Your task to perform on an android device: toggle location history Image 0: 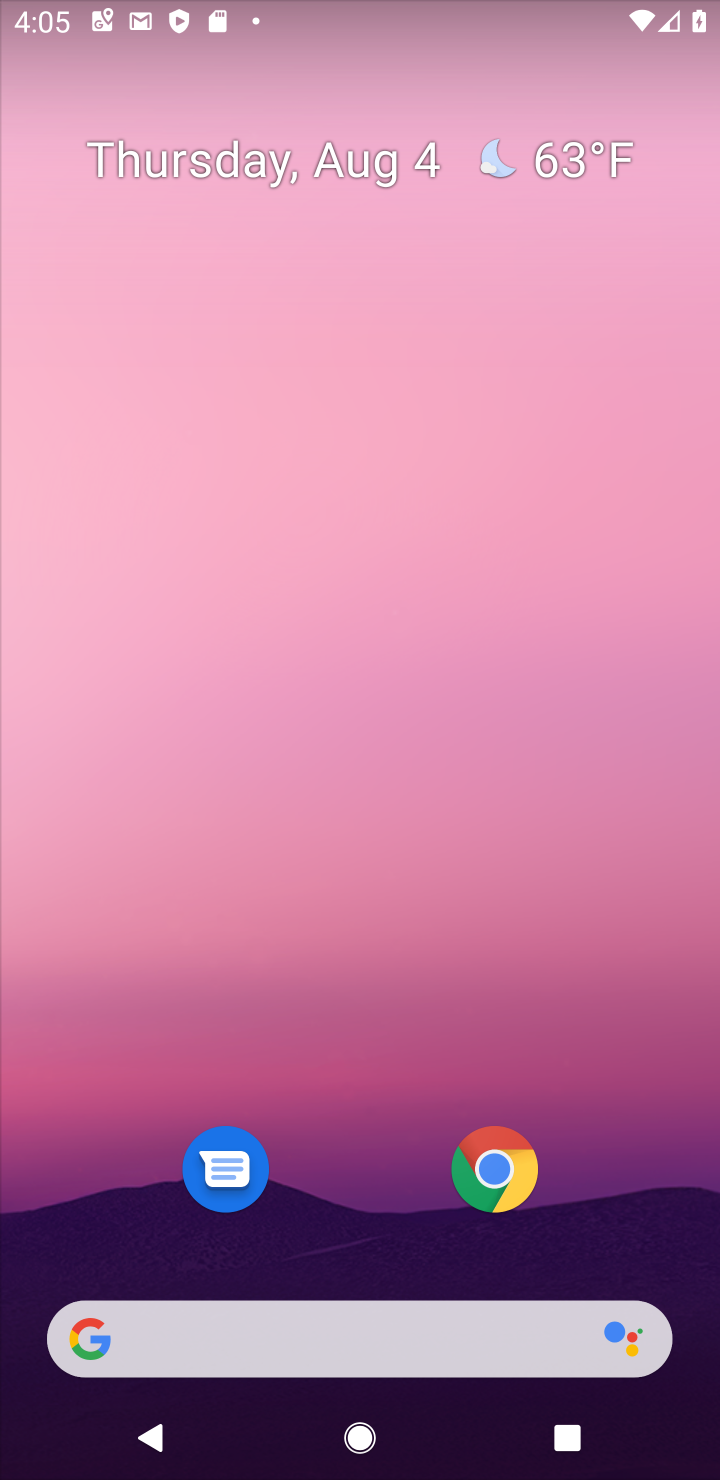
Step 0: drag from (359, 933) to (442, 218)
Your task to perform on an android device: toggle location history Image 1: 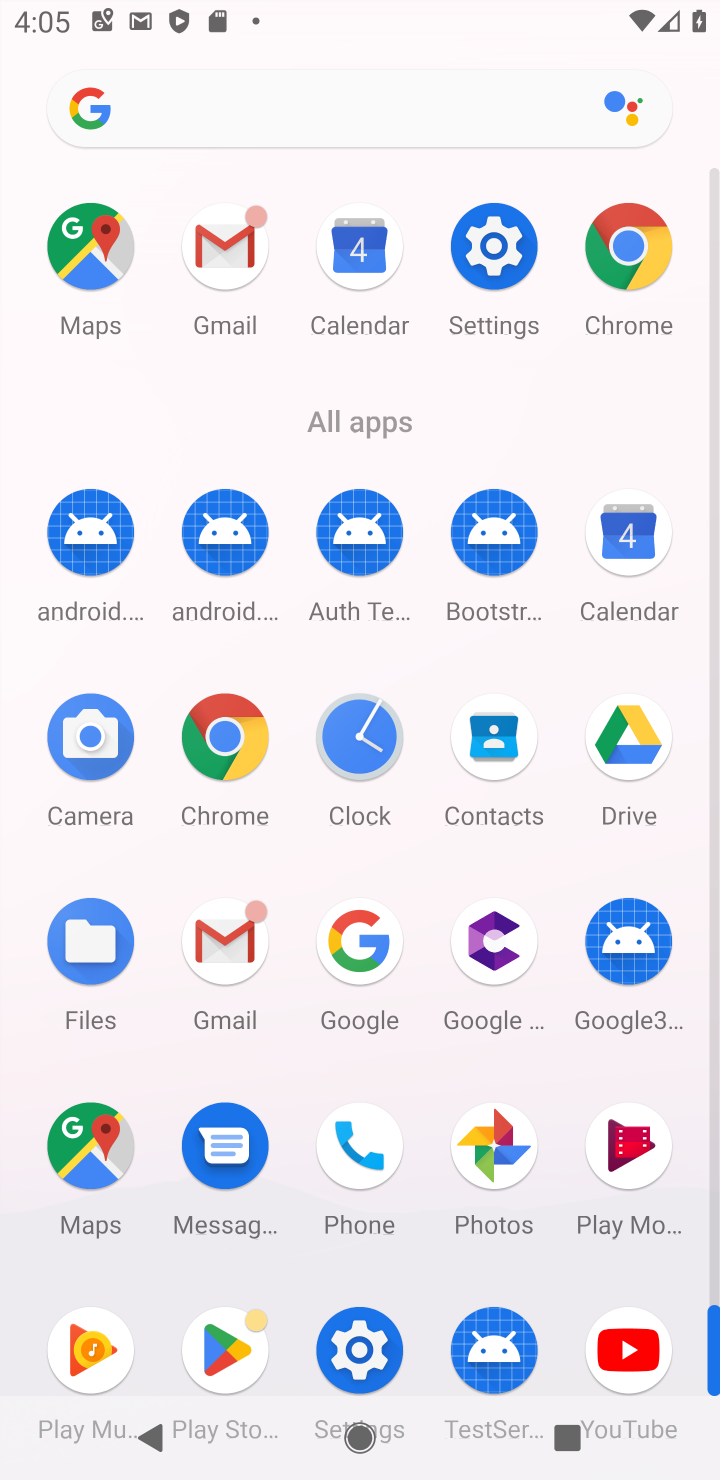
Step 1: click (482, 292)
Your task to perform on an android device: toggle location history Image 2: 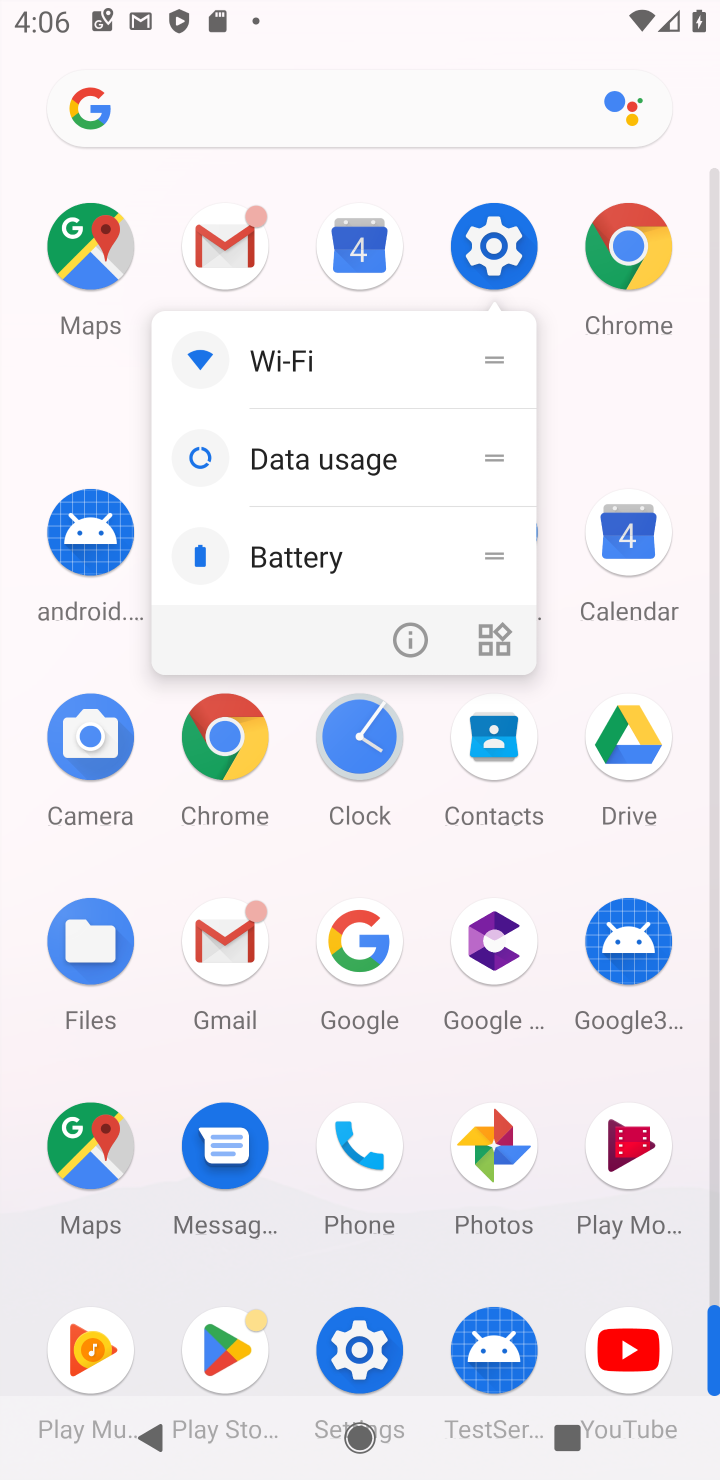
Step 2: click (518, 242)
Your task to perform on an android device: toggle location history Image 3: 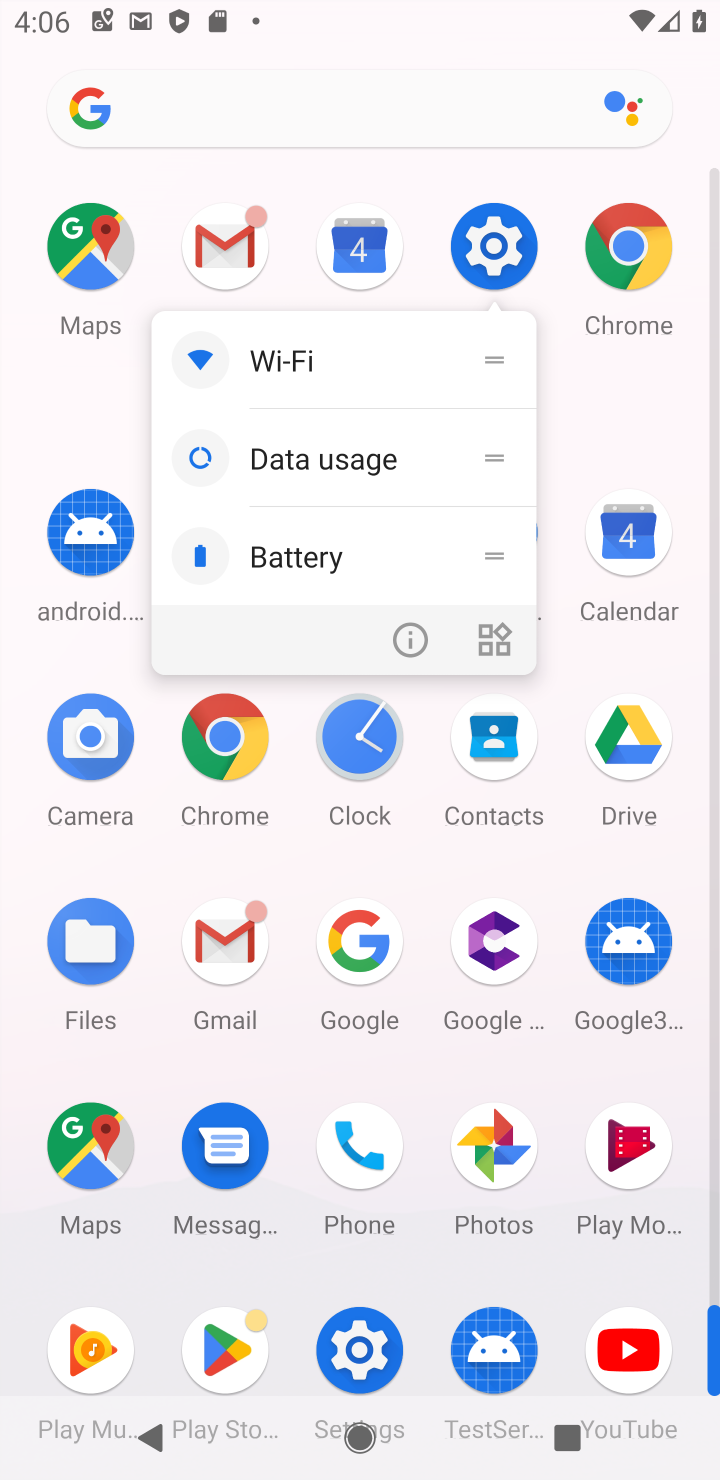
Step 3: click (512, 252)
Your task to perform on an android device: toggle location history Image 4: 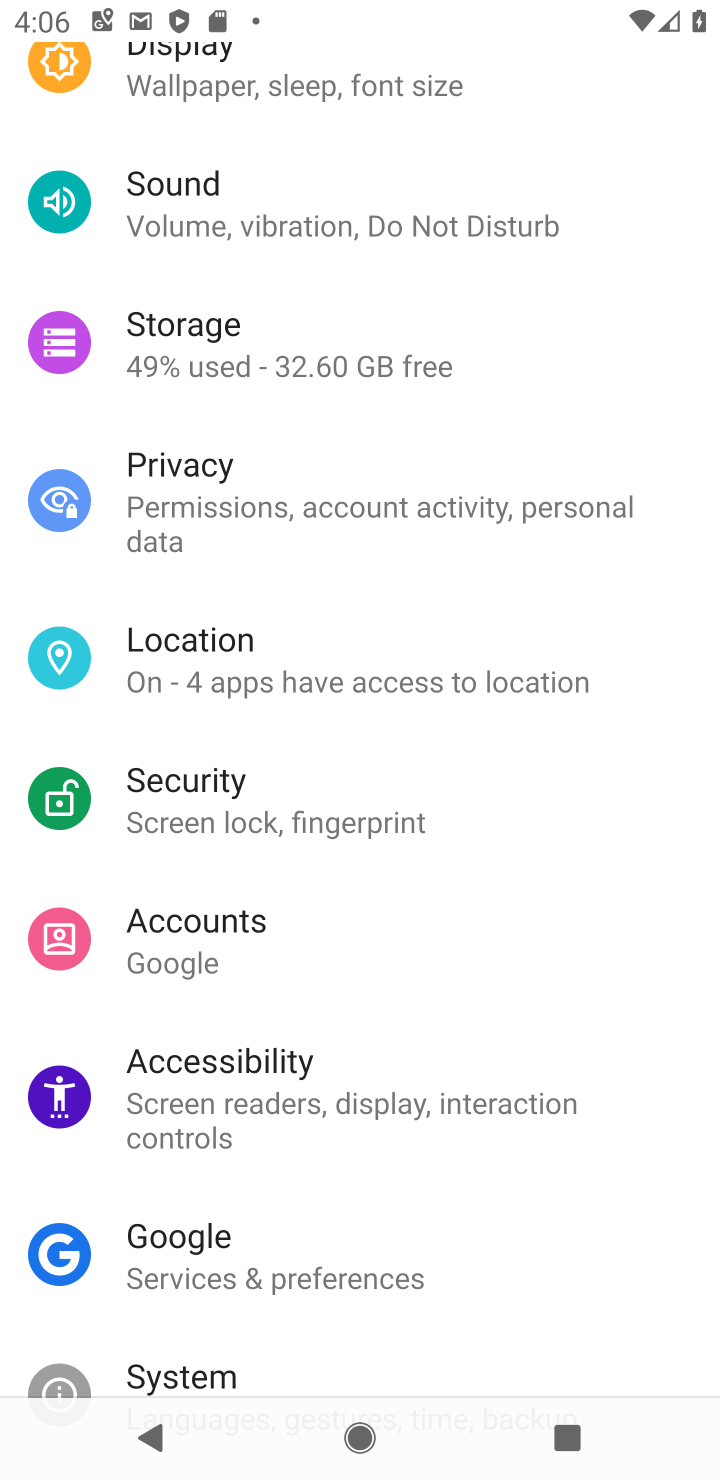
Step 4: click (322, 672)
Your task to perform on an android device: toggle location history Image 5: 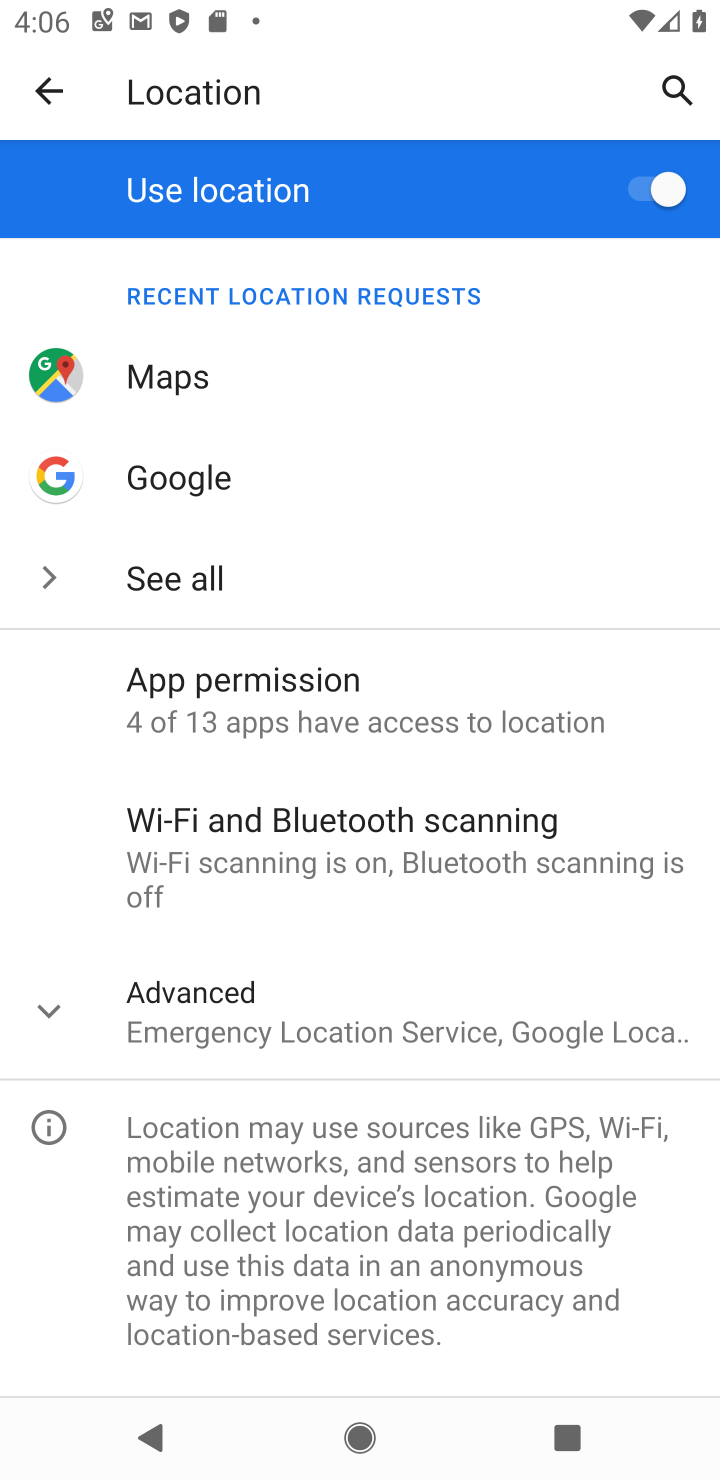
Step 5: click (343, 1039)
Your task to perform on an android device: toggle location history Image 6: 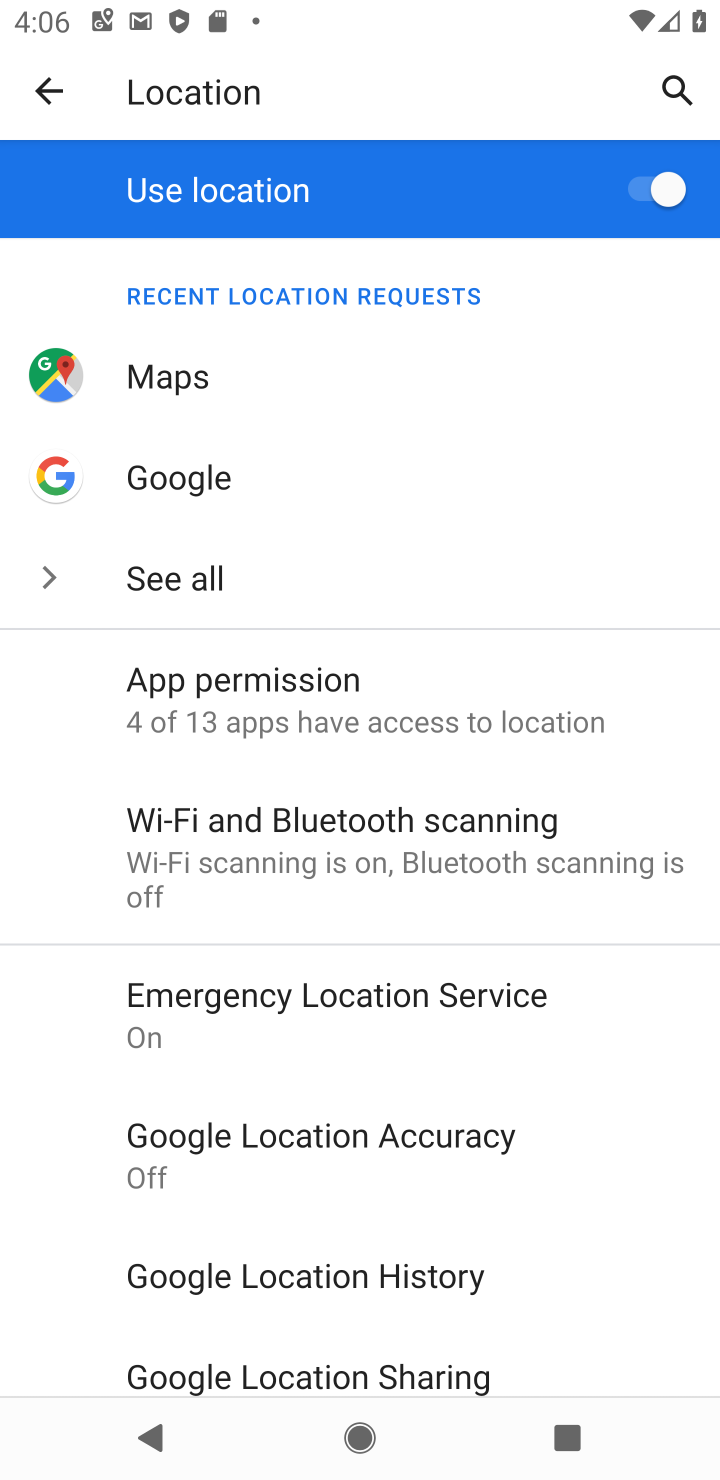
Step 6: click (347, 1271)
Your task to perform on an android device: toggle location history Image 7: 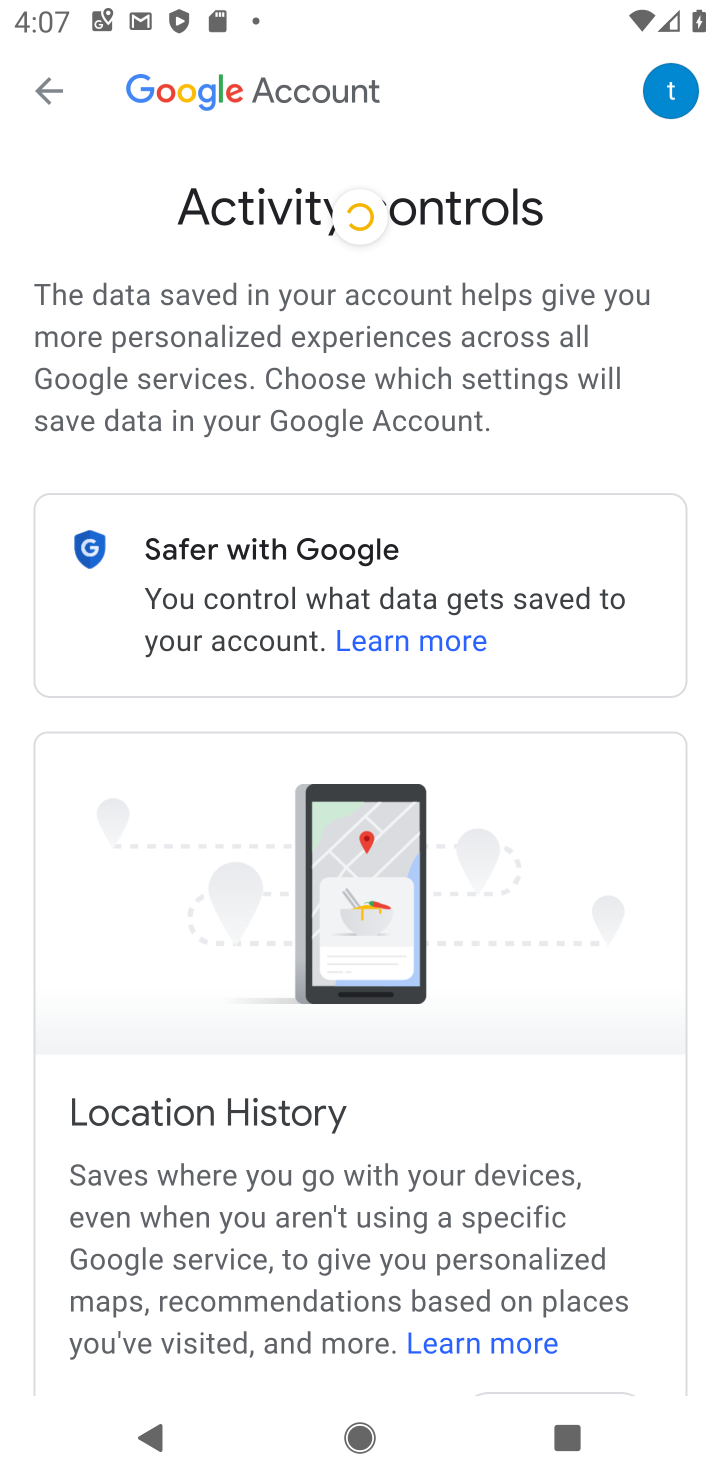
Step 7: drag from (412, 1022) to (449, 427)
Your task to perform on an android device: toggle location history Image 8: 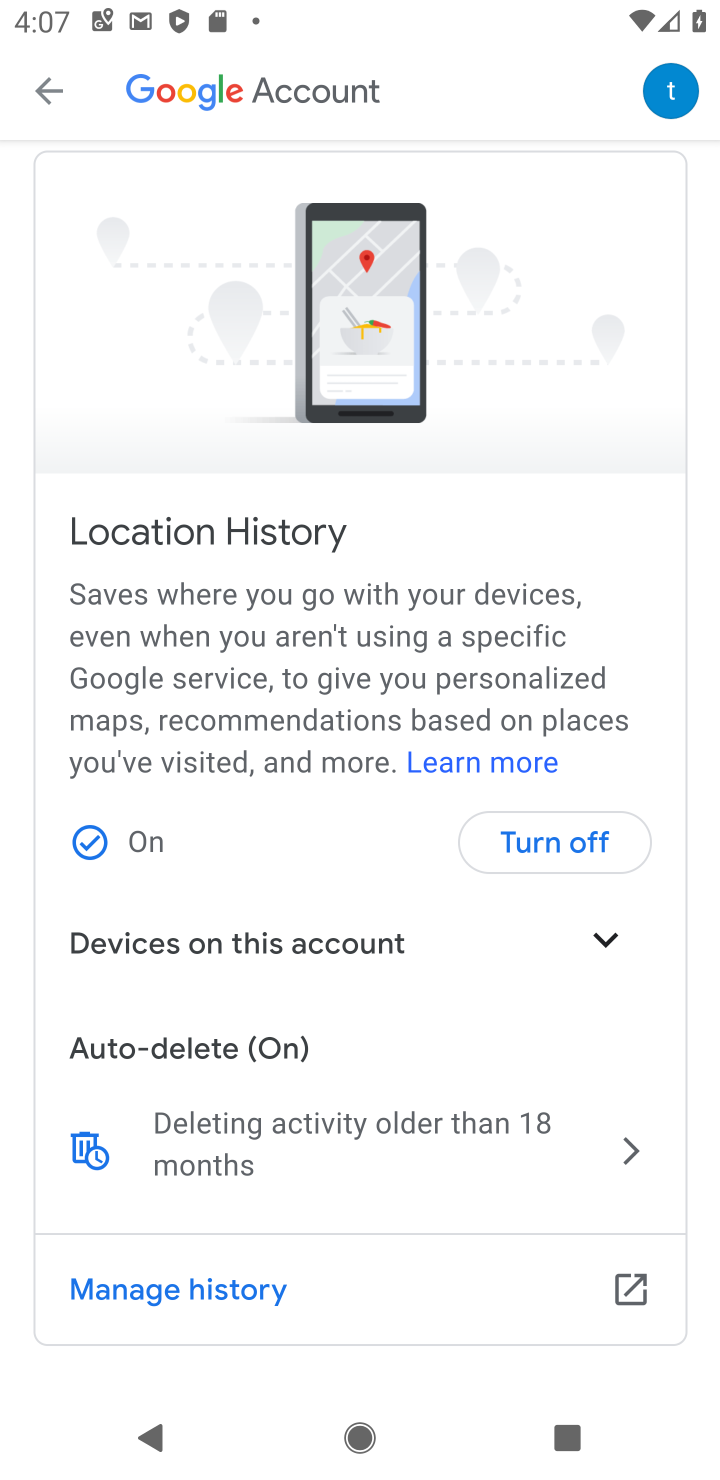
Step 8: click (544, 836)
Your task to perform on an android device: toggle location history Image 9: 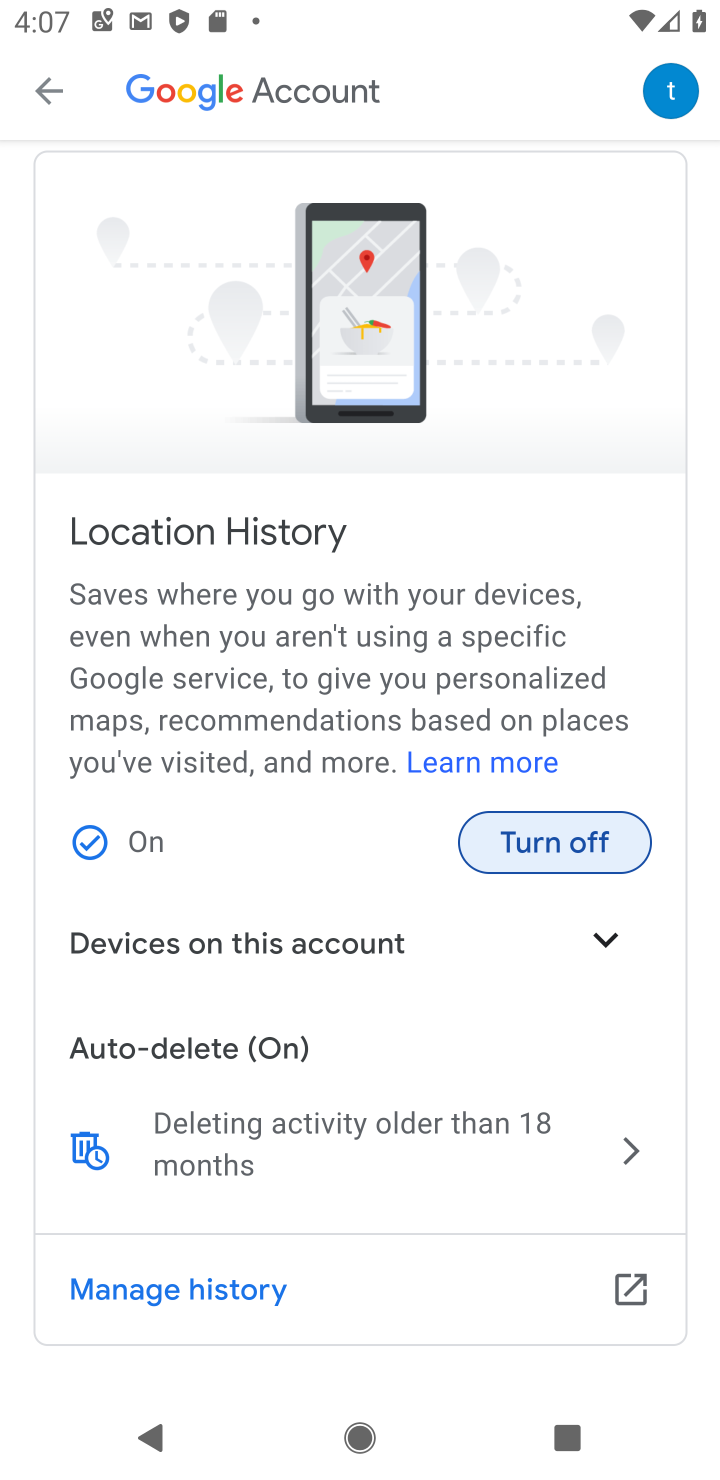
Step 9: click (546, 834)
Your task to perform on an android device: toggle location history Image 10: 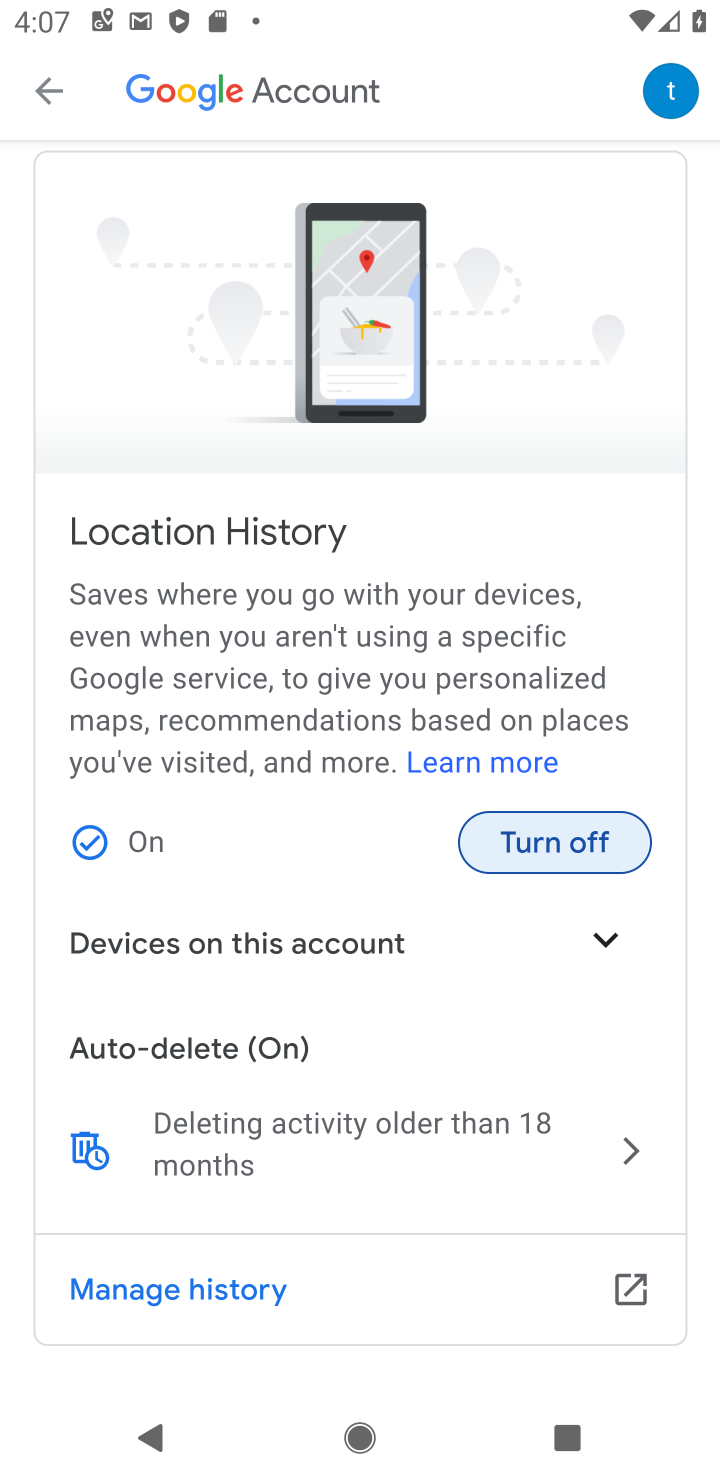
Step 10: drag from (349, 1155) to (378, 892)
Your task to perform on an android device: toggle location history Image 11: 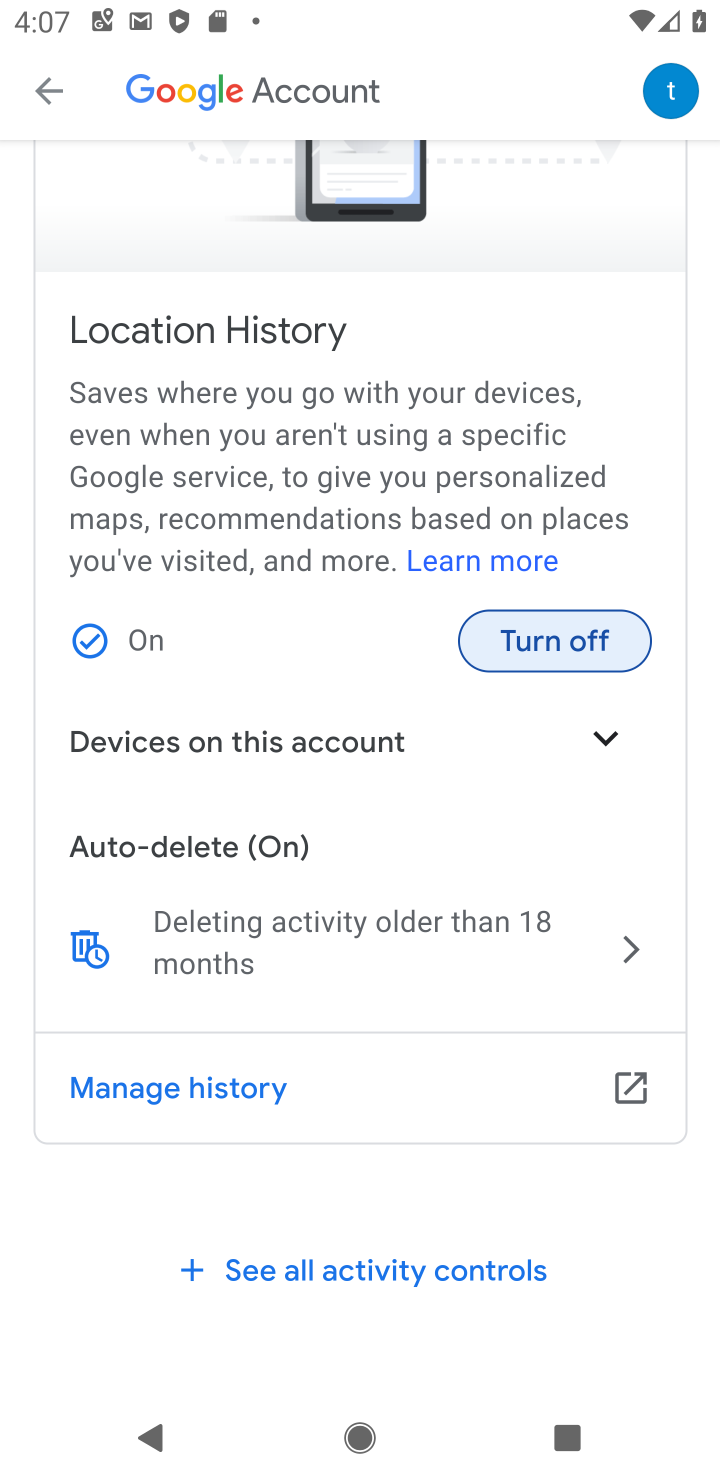
Step 11: click (532, 638)
Your task to perform on an android device: toggle location history Image 12: 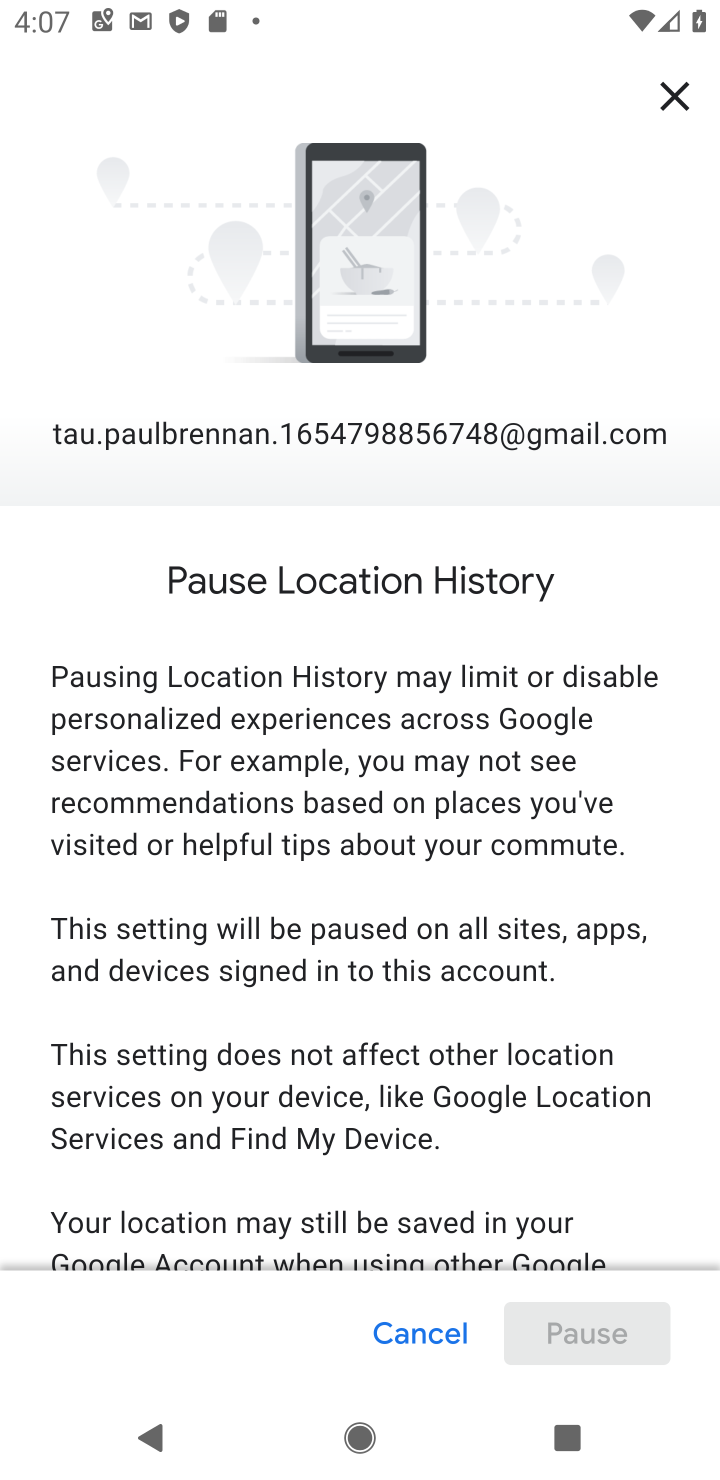
Step 12: drag from (368, 1158) to (426, 195)
Your task to perform on an android device: toggle location history Image 13: 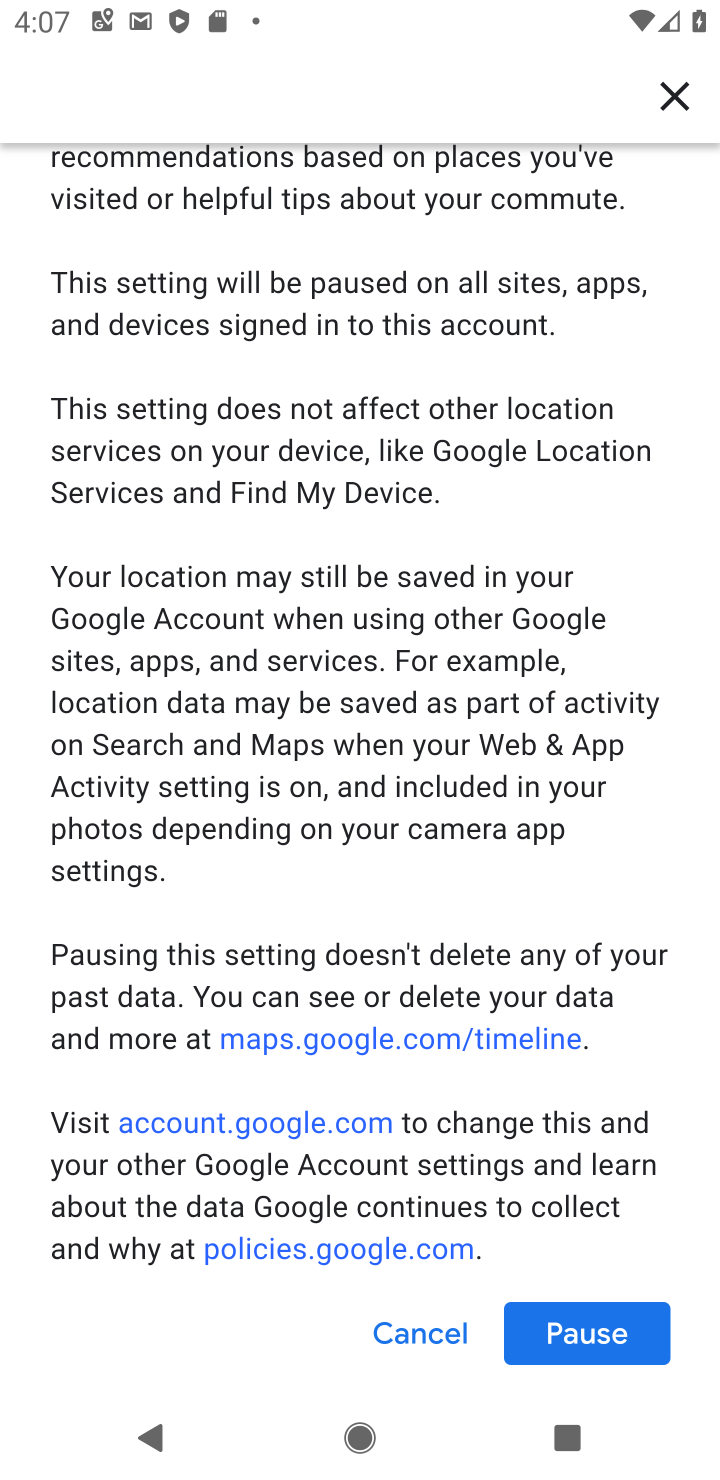
Step 13: drag from (392, 885) to (460, 45)
Your task to perform on an android device: toggle location history Image 14: 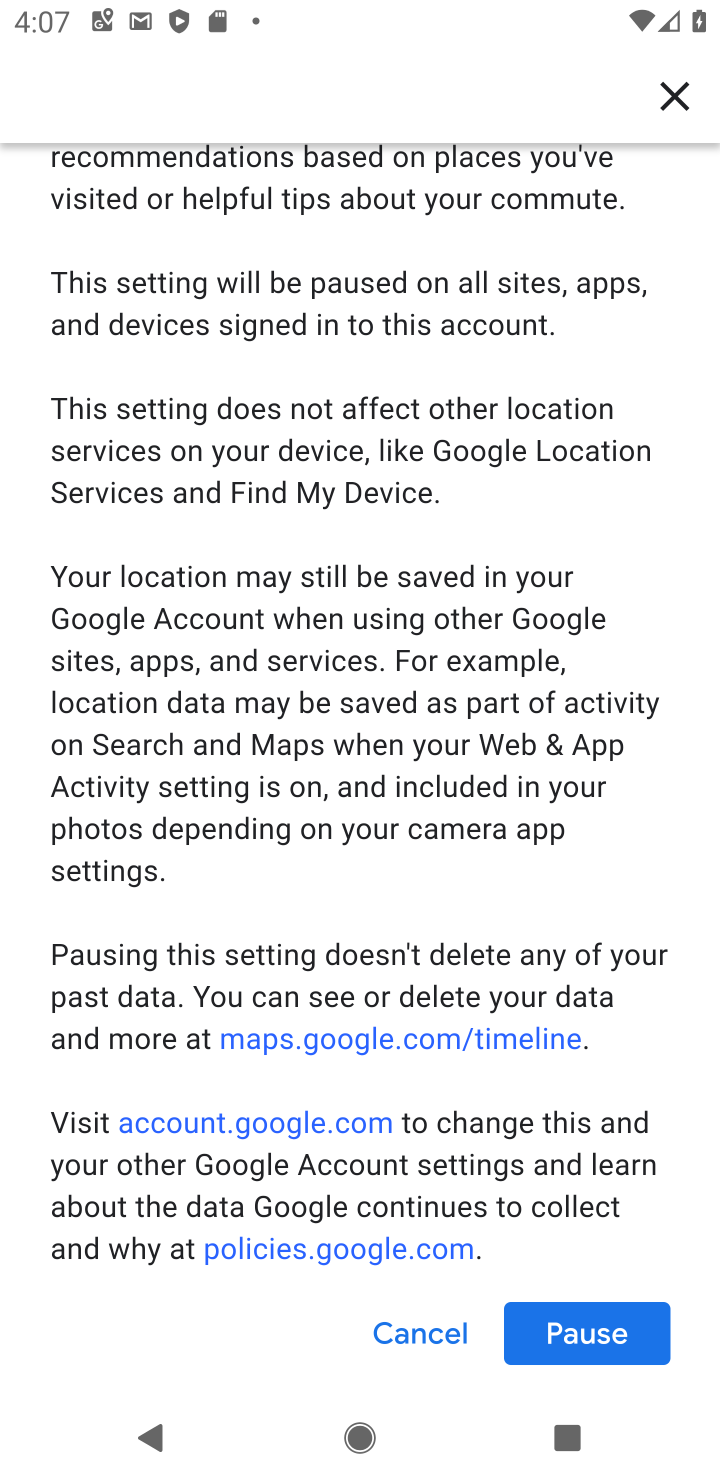
Step 14: click (569, 1336)
Your task to perform on an android device: toggle location history Image 15: 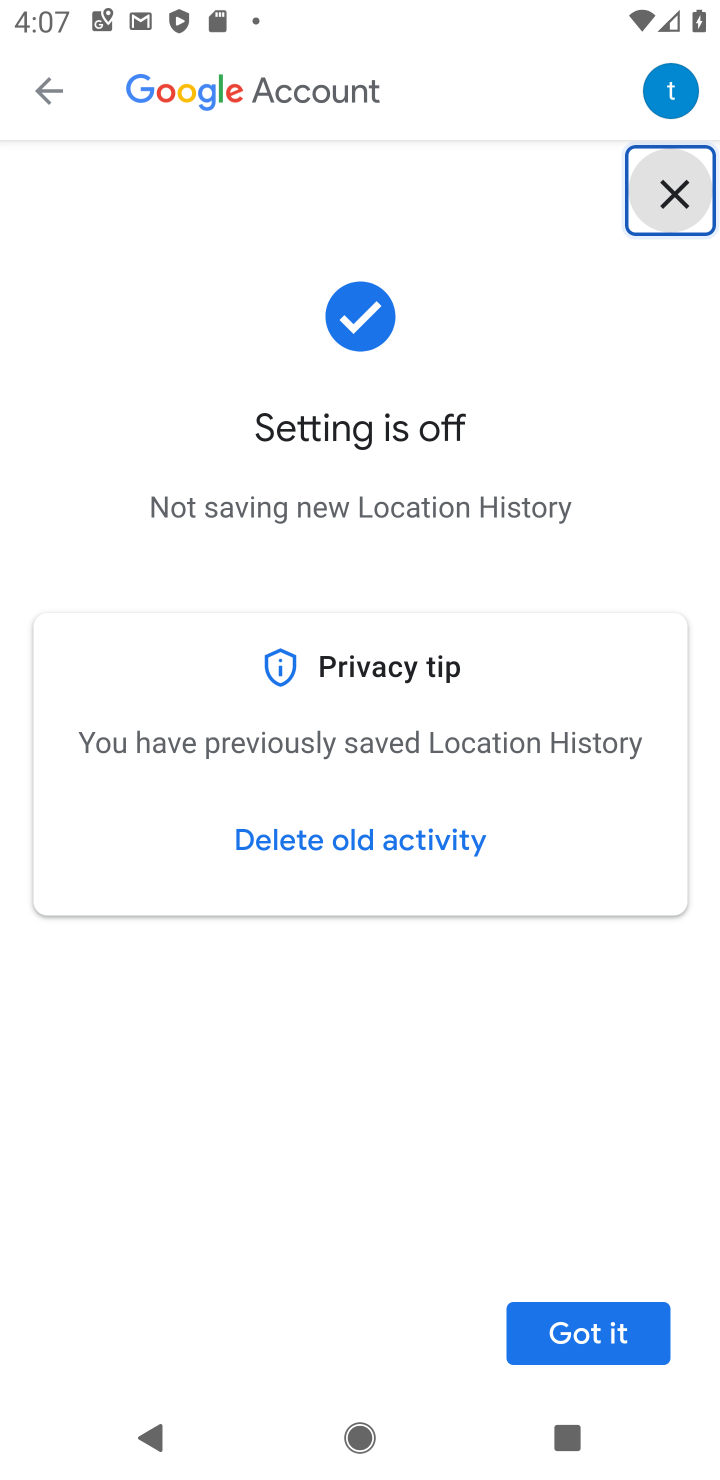
Step 15: click (601, 1326)
Your task to perform on an android device: toggle location history Image 16: 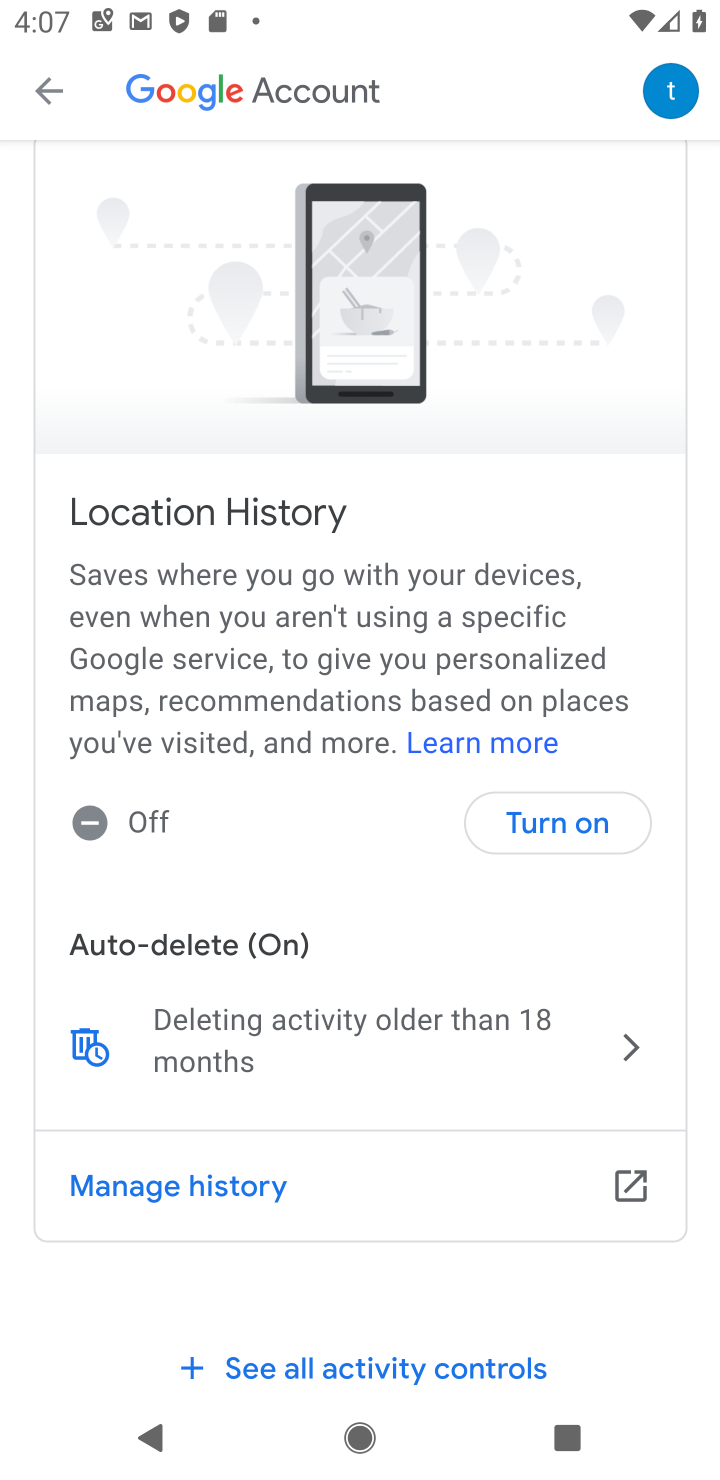
Step 16: task complete